Your task to perform on an android device: turn off javascript in the chrome app Image 0: 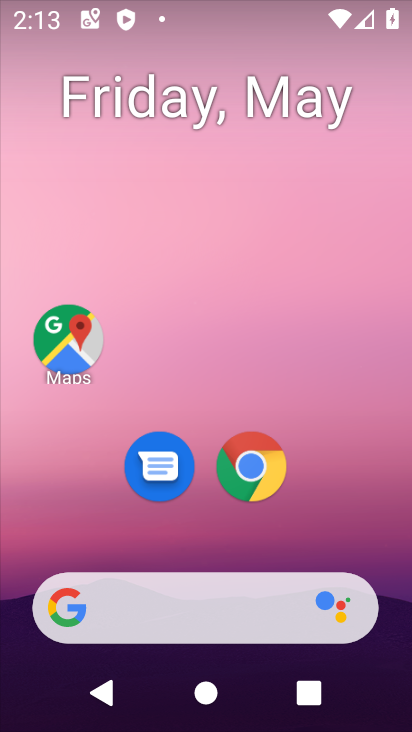
Step 0: click (266, 473)
Your task to perform on an android device: turn off javascript in the chrome app Image 1: 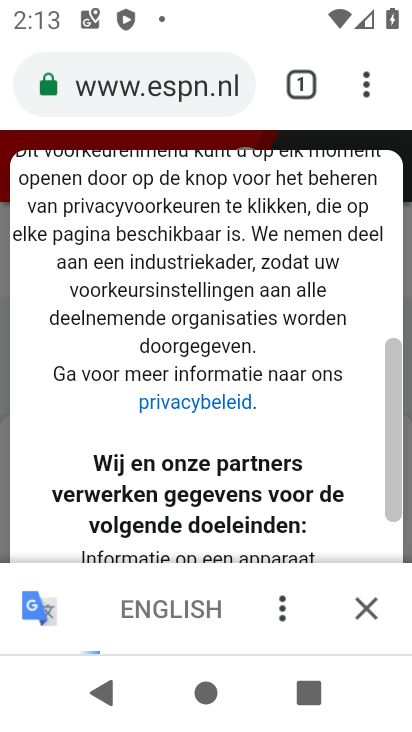
Step 1: drag from (365, 93) to (117, 520)
Your task to perform on an android device: turn off javascript in the chrome app Image 2: 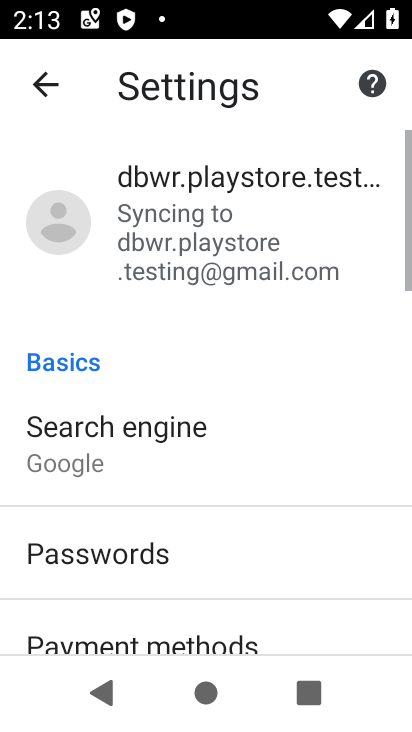
Step 2: drag from (116, 608) to (225, 129)
Your task to perform on an android device: turn off javascript in the chrome app Image 3: 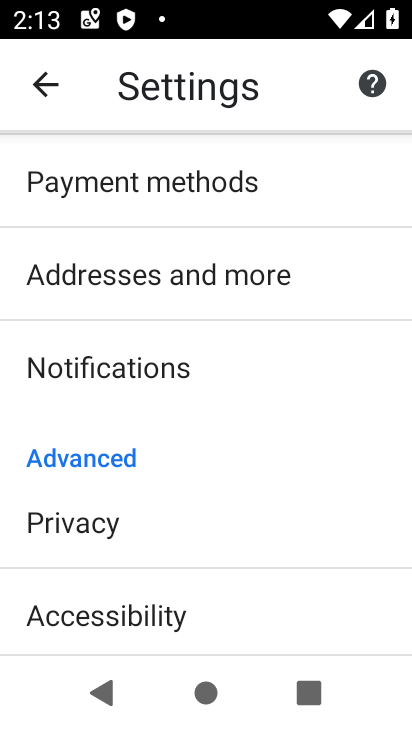
Step 3: drag from (143, 618) to (252, 207)
Your task to perform on an android device: turn off javascript in the chrome app Image 4: 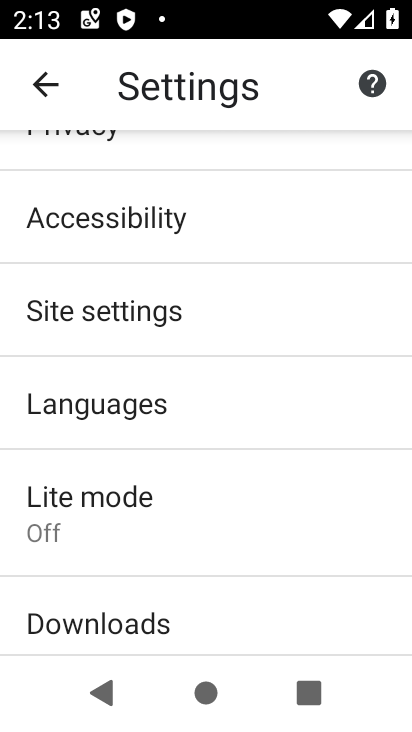
Step 4: click (110, 309)
Your task to perform on an android device: turn off javascript in the chrome app Image 5: 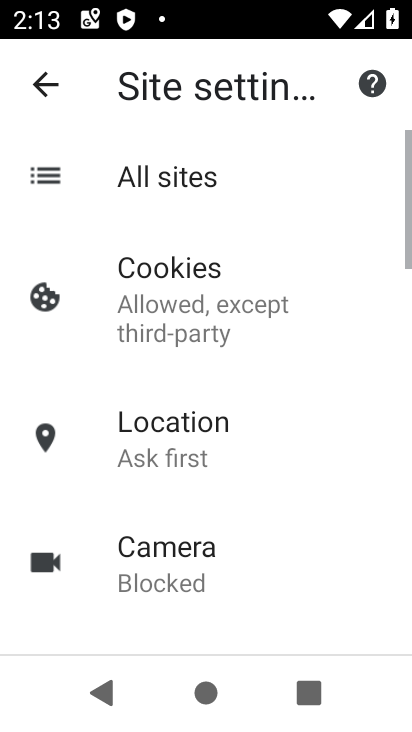
Step 5: drag from (182, 543) to (303, 84)
Your task to perform on an android device: turn off javascript in the chrome app Image 6: 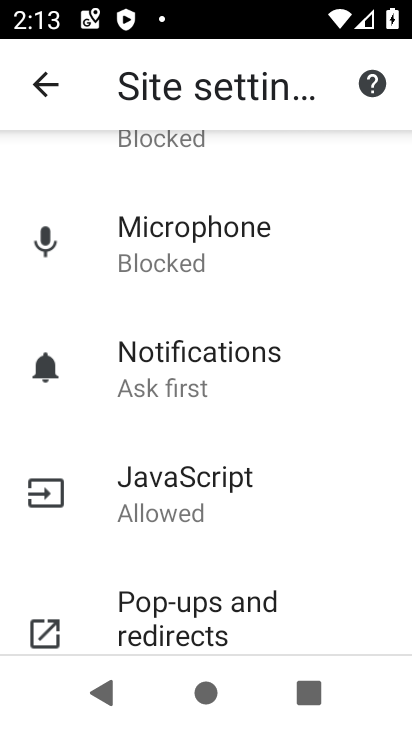
Step 6: click (217, 492)
Your task to perform on an android device: turn off javascript in the chrome app Image 7: 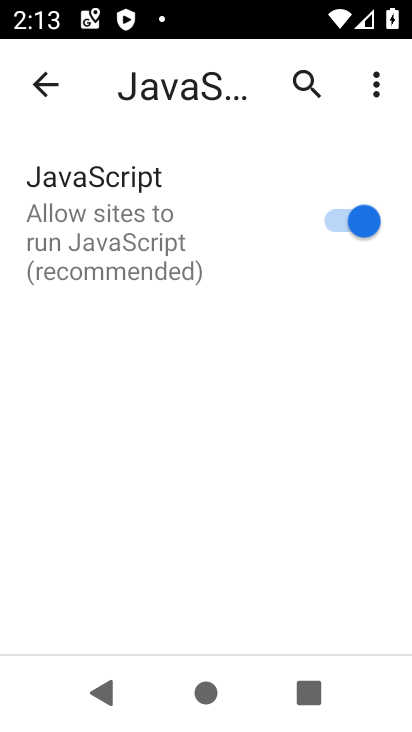
Step 7: click (337, 219)
Your task to perform on an android device: turn off javascript in the chrome app Image 8: 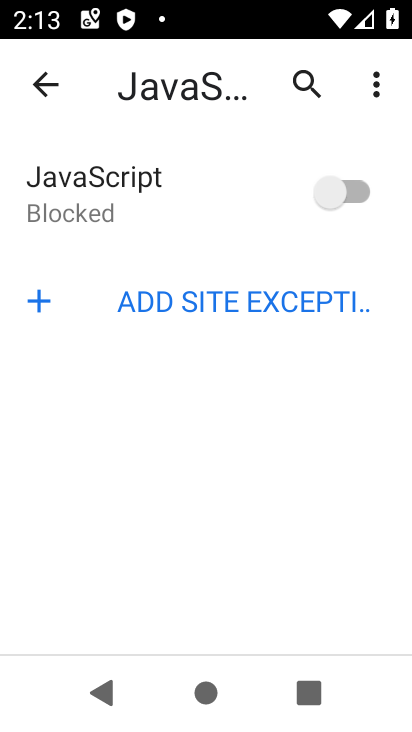
Step 8: task complete